Your task to perform on an android device: Is it going to rain tomorrow? Image 0: 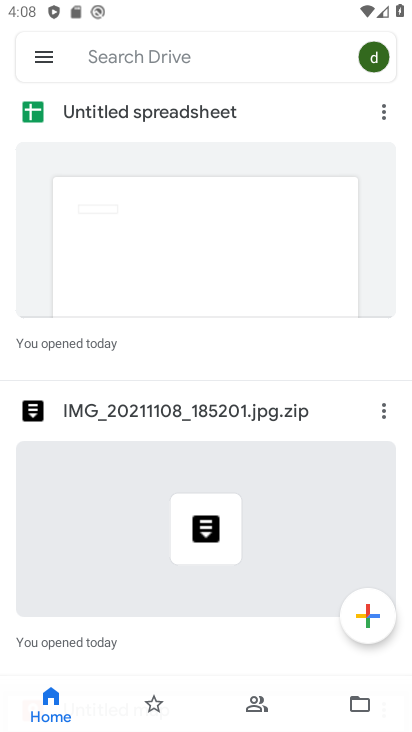
Step 0: press back button
Your task to perform on an android device: Is it going to rain tomorrow? Image 1: 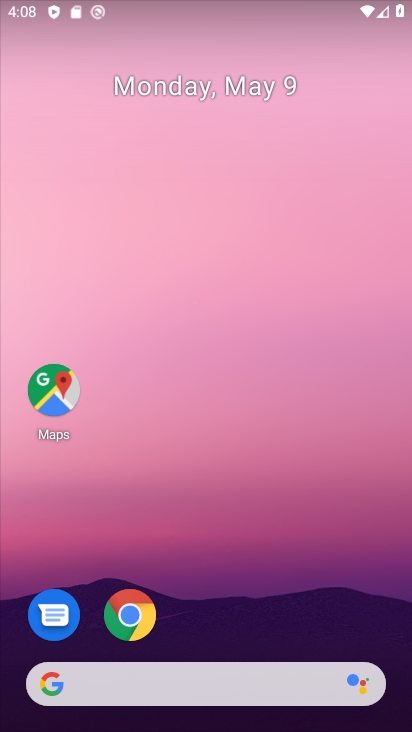
Step 1: click (198, 675)
Your task to perform on an android device: Is it going to rain tomorrow? Image 2: 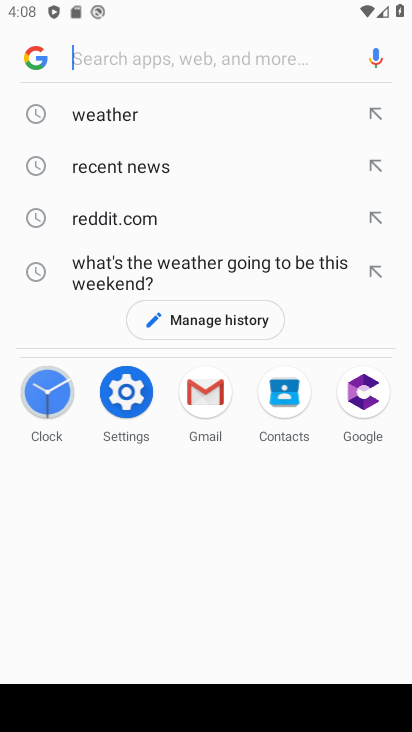
Step 2: click (206, 110)
Your task to perform on an android device: Is it going to rain tomorrow? Image 3: 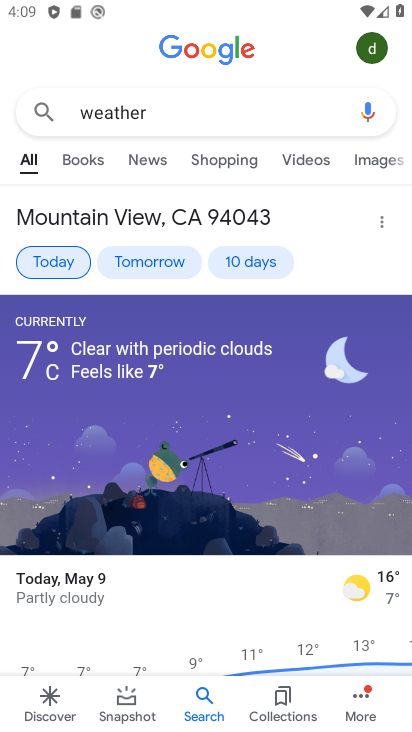
Step 3: drag from (172, 551) to (217, 387)
Your task to perform on an android device: Is it going to rain tomorrow? Image 4: 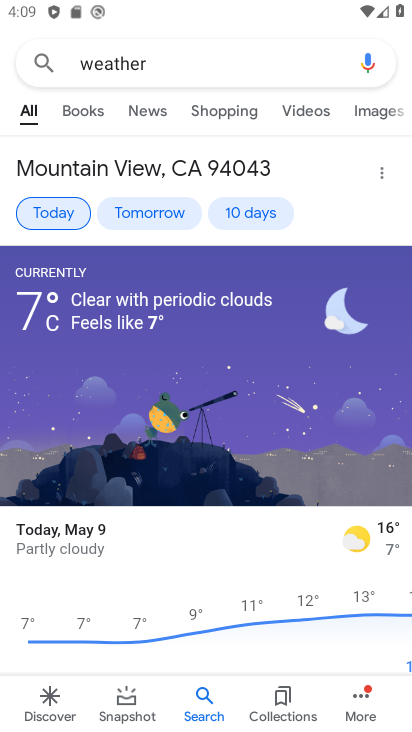
Step 4: drag from (163, 589) to (266, 405)
Your task to perform on an android device: Is it going to rain tomorrow? Image 5: 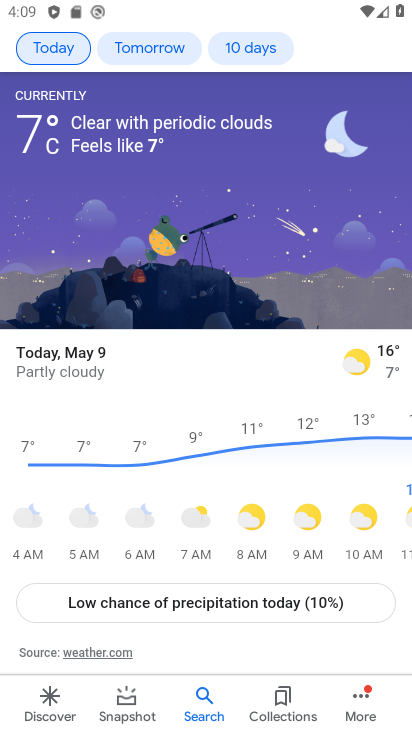
Step 5: click (184, 49)
Your task to perform on an android device: Is it going to rain tomorrow? Image 6: 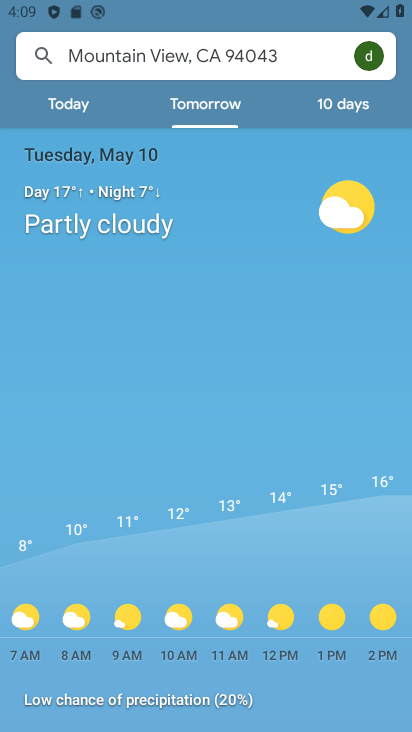
Step 6: task complete